Your task to perform on an android device: turn on the 24-hour format for clock Image 0: 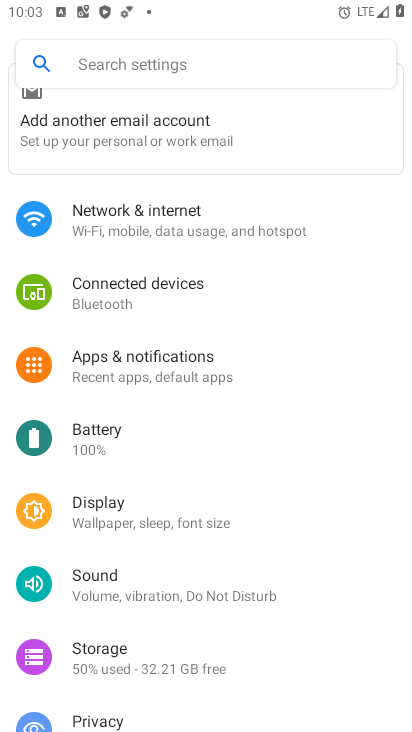
Step 0: press home button
Your task to perform on an android device: turn on the 24-hour format for clock Image 1: 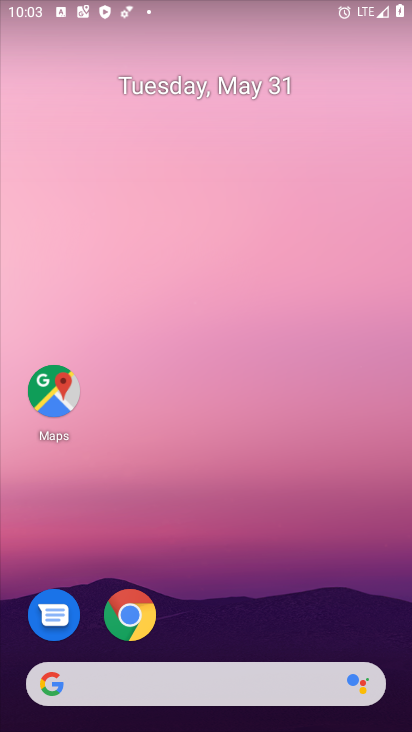
Step 1: drag from (332, 594) to (284, 53)
Your task to perform on an android device: turn on the 24-hour format for clock Image 2: 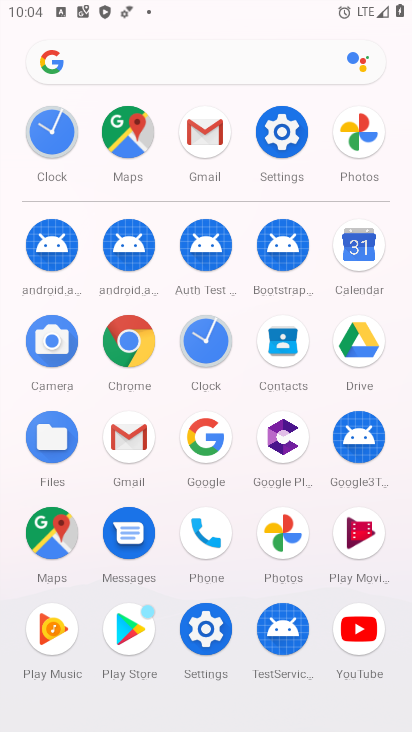
Step 2: click (205, 340)
Your task to perform on an android device: turn on the 24-hour format for clock Image 3: 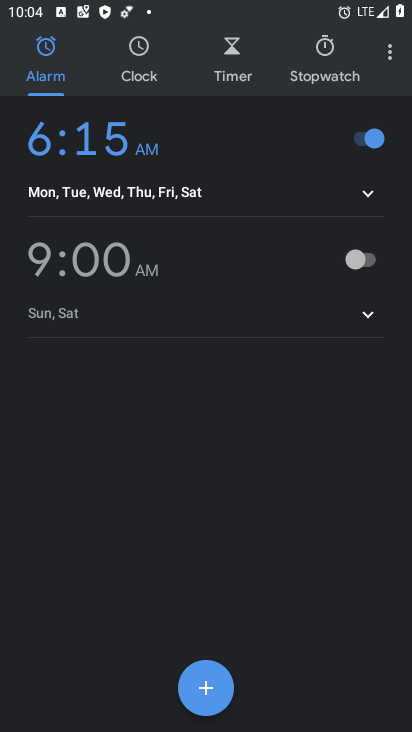
Step 3: click (385, 56)
Your task to perform on an android device: turn on the 24-hour format for clock Image 4: 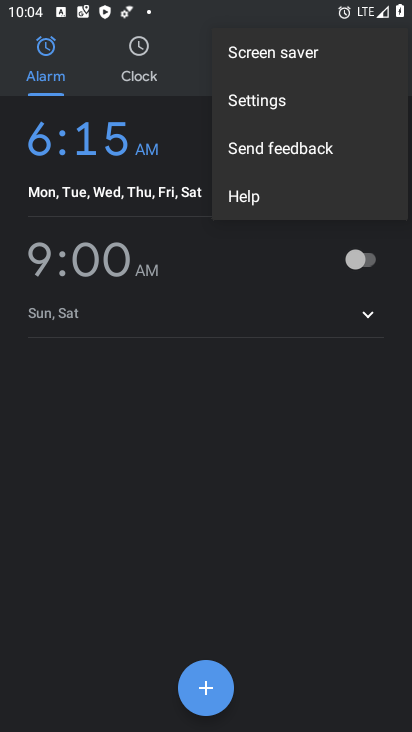
Step 4: click (246, 98)
Your task to perform on an android device: turn on the 24-hour format for clock Image 5: 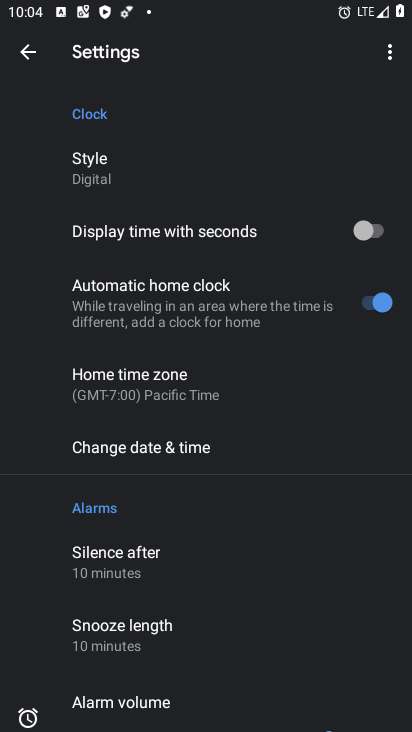
Step 5: click (153, 452)
Your task to perform on an android device: turn on the 24-hour format for clock Image 6: 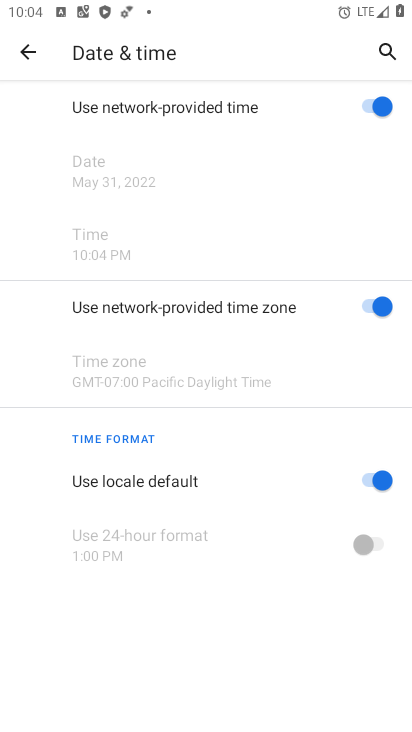
Step 6: click (367, 477)
Your task to perform on an android device: turn on the 24-hour format for clock Image 7: 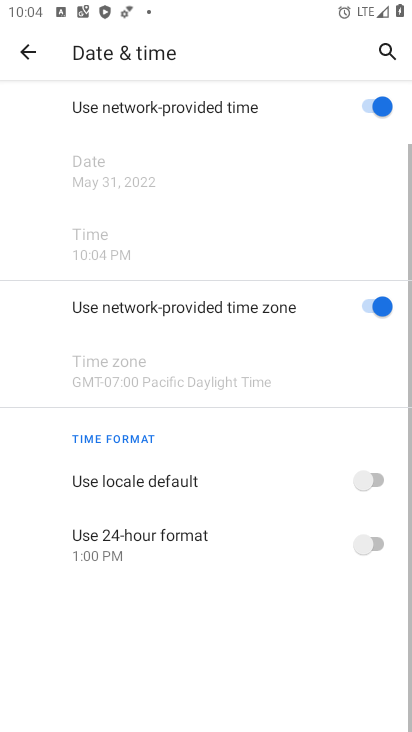
Step 7: click (379, 544)
Your task to perform on an android device: turn on the 24-hour format for clock Image 8: 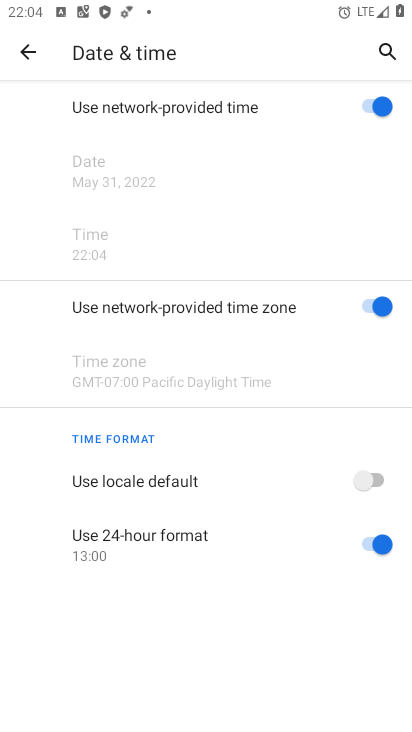
Step 8: task complete